Your task to perform on an android device: read, delete, or share a saved page in the chrome app Image 0: 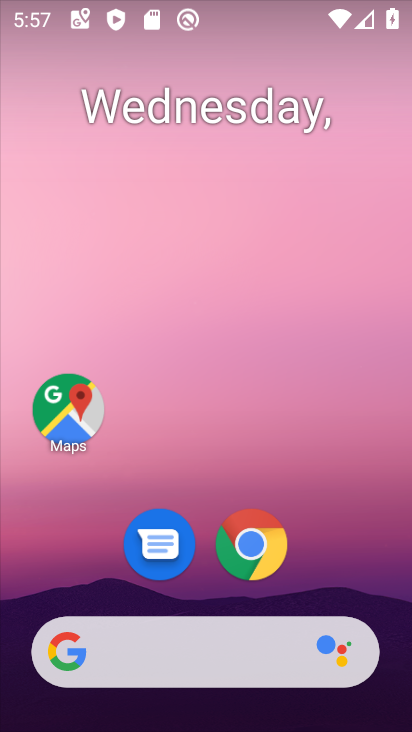
Step 0: click (266, 538)
Your task to perform on an android device: read, delete, or share a saved page in the chrome app Image 1: 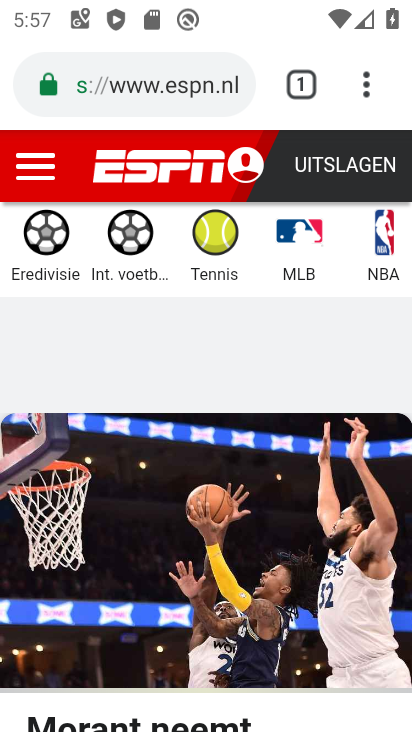
Step 1: click (361, 80)
Your task to perform on an android device: read, delete, or share a saved page in the chrome app Image 2: 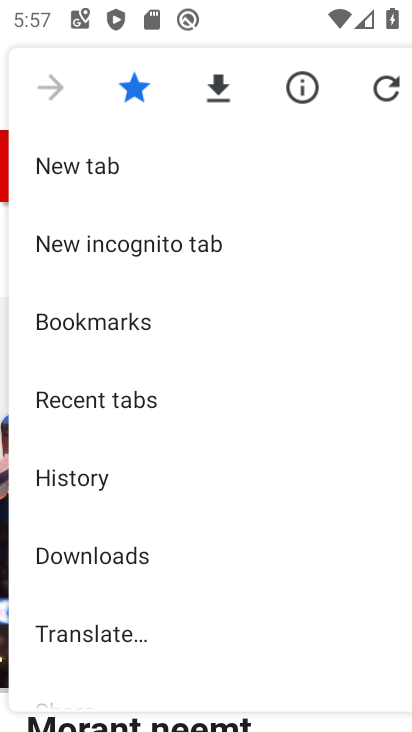
Step 2: click (103, 558)
Your task to perform on an android device: read, delete, or share a saved page in the chrome app Image 3: 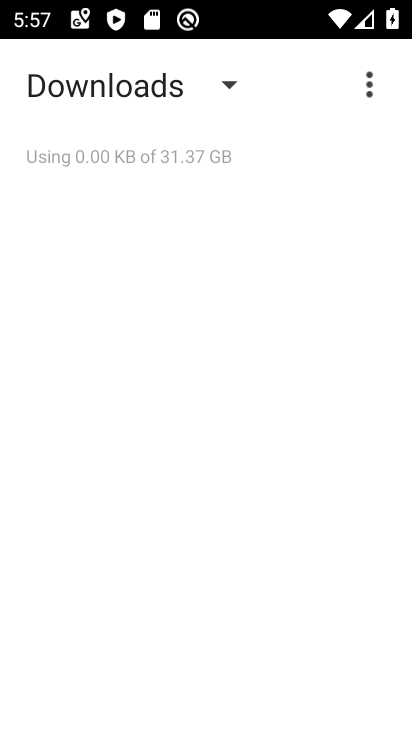
Step 3: click (134, 86)
Your task to perform on an android device: read, delete, or share a saved page in the chrome app Image 4: 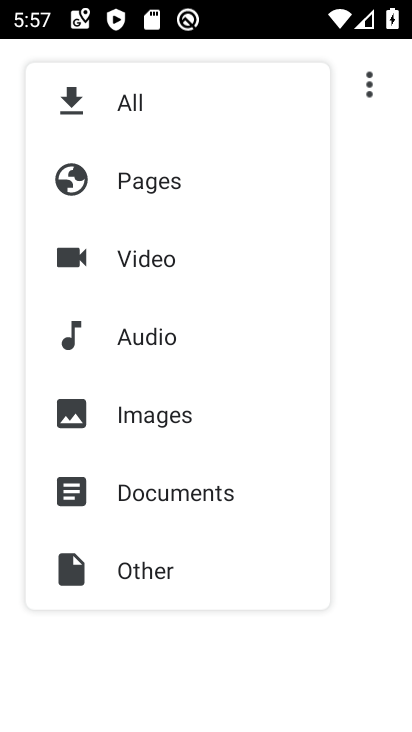
Step 4: click (154, 196)
Your task to perform on an android device: read, delete, or share a saved page in the chrome app Image 5: 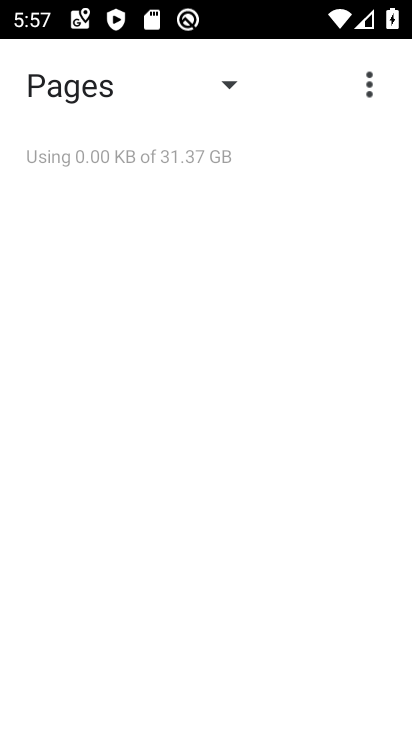
Step 5: task complete